Your task to perform on an android device: turn on priority inbox in the gmail app Image 0: 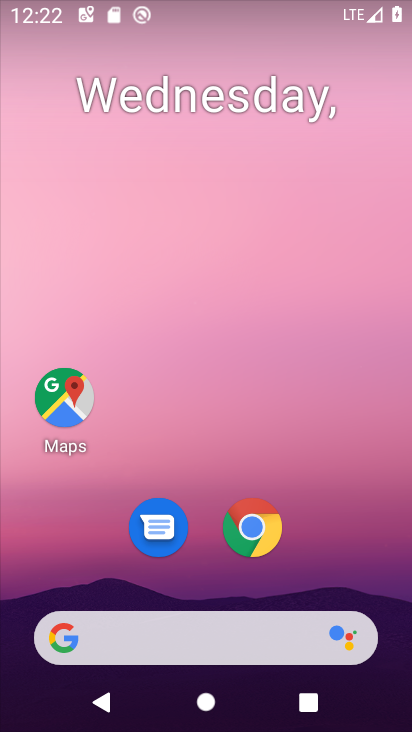
Step 0: drag from (231, 610) to (239, 165)
Your task to perform on an android device: turn on priority inbox in the gmail app Image 1: 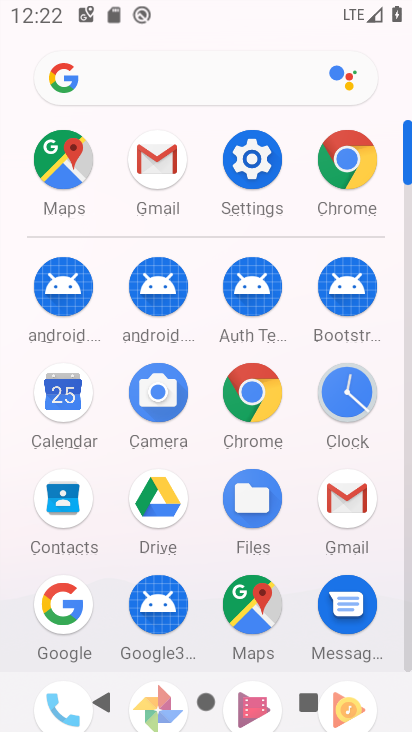
Step 1: click (335, 486)
Your task to perform on an android device: turn on priority inbox in the gmail app Image 2: 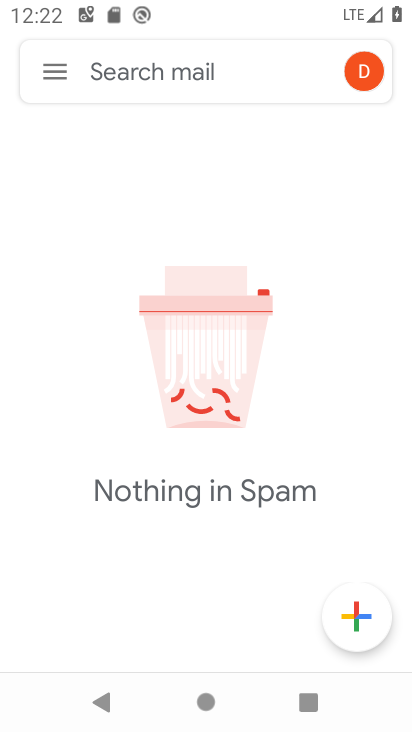
Step 2: click (45, 67)
Your task to perform on an android device: turn on priority inbox in the gmail app Image 3: 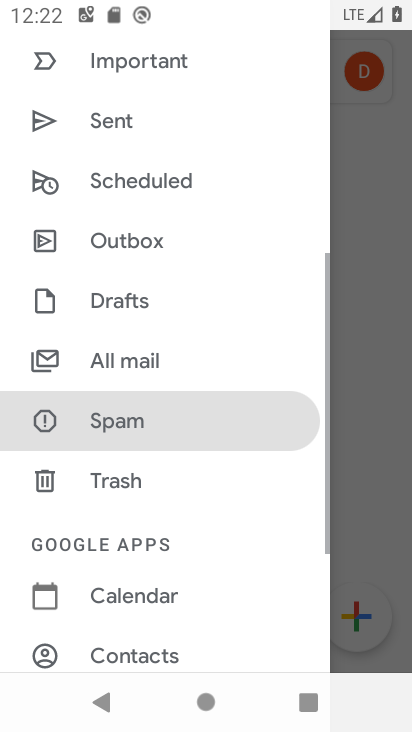
Step 3: drag from (212, 646) to (192, 272)
Your task to perform on an android device: turn on priority inbox in the gmail app Image 4: 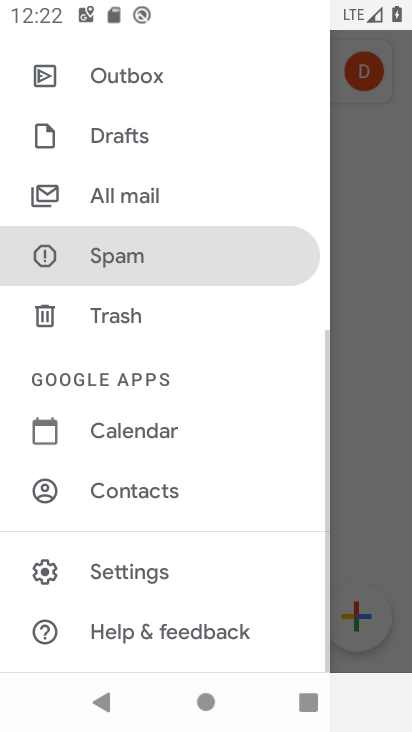
Step 4: click (138, 573)
Your task to perform on an android device: turn on priority inbox in the gmail app Image 5: 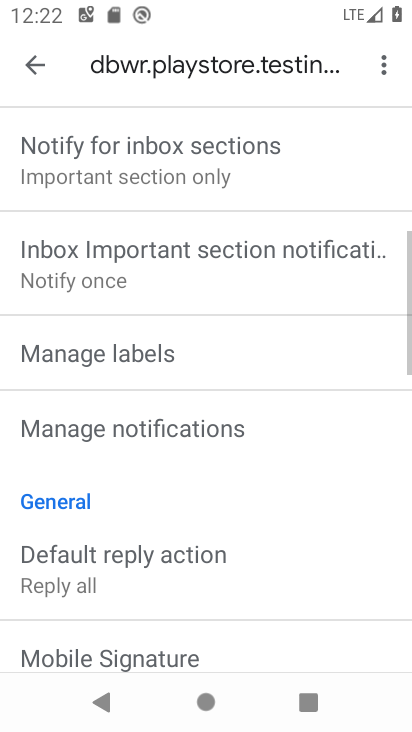
Step 5: task complete